Your task to perform on an android device: star an email in the gmail app Image 0: 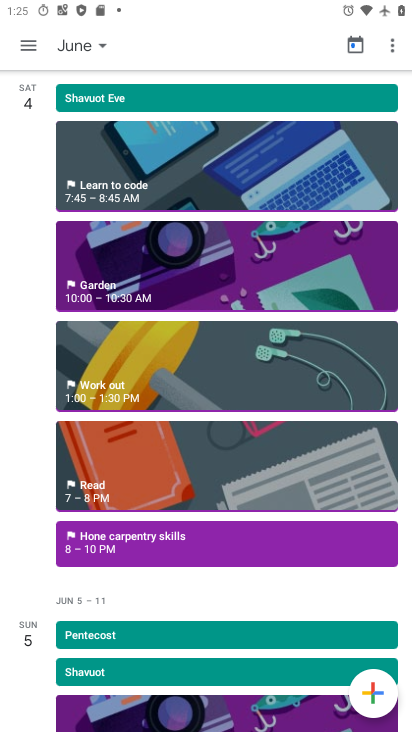
Step 0: press home button
Your task to perform on an android device: star an email in the gmail app Image 1: 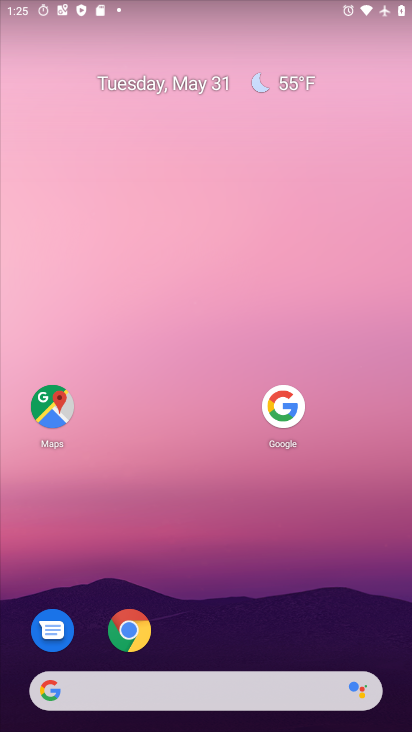
Step 1: drag from (170, 688) to (306, 81)
Your task to perform on an android device: star an email in the gmail app Image 2: 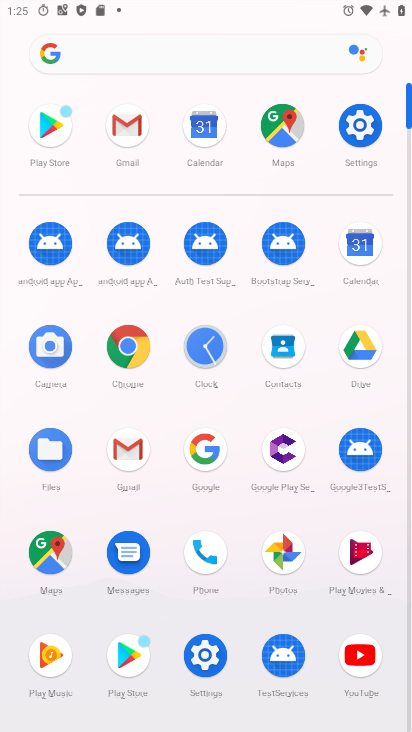
Step 2: click (120, 134)
Your task to perform on an android device: star an email in the gmail app Image 3: 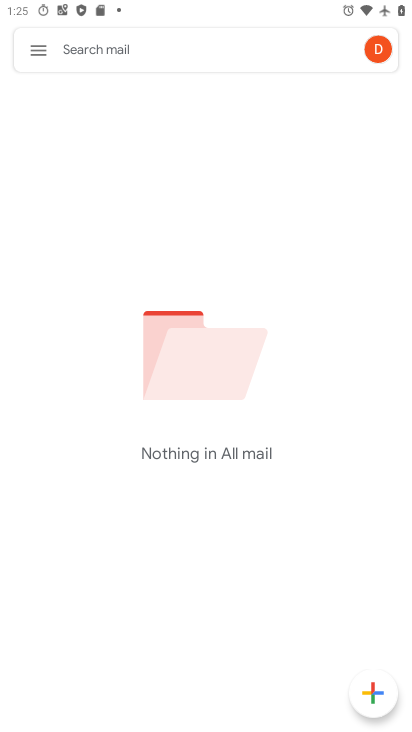
Step 3: task complete